Your task to perform on an android device: Search for "rayovac triple a" on ebay.com, select the first entry, and add it to the cart. Image 0: 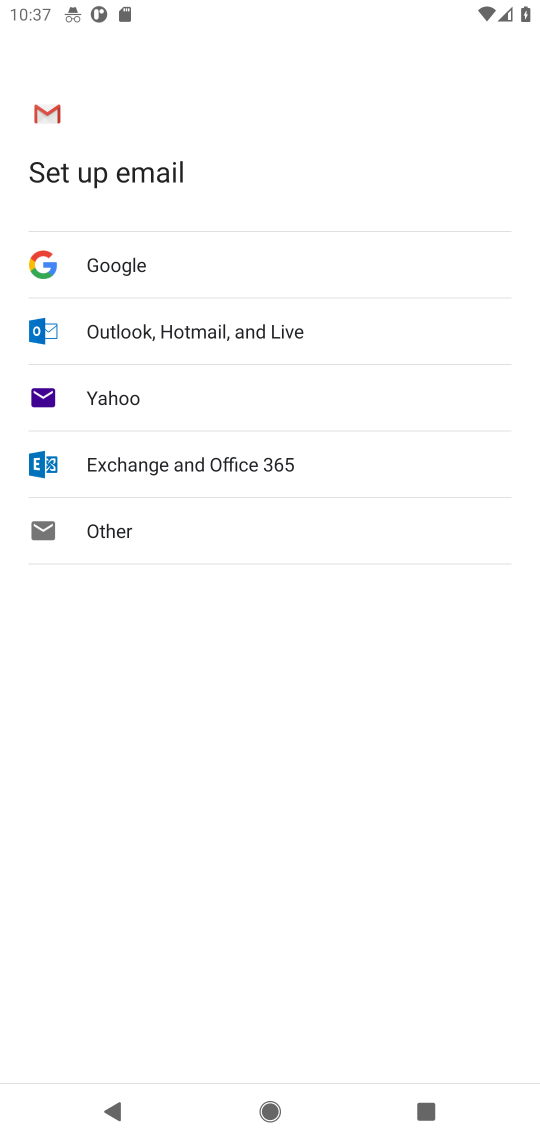
Step 0: press home button
Your task to perform on an android device: Search for "rayovac triple a" on ebay.com, select the first entry, and add it to the cart. Image 1: 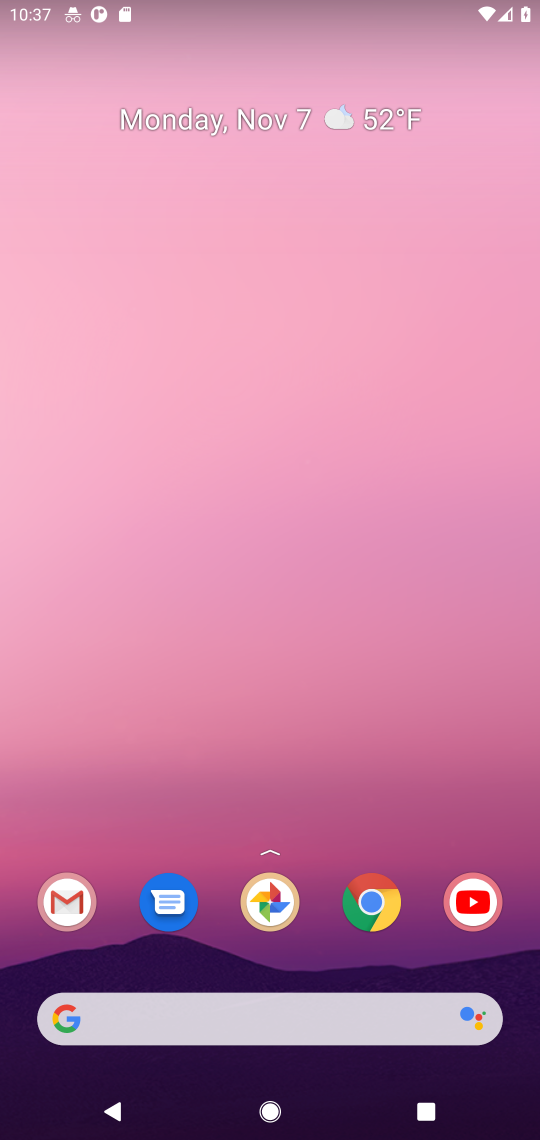
Step 1: click (371, 917)
Your task to perform on an android device: Search for "rayovac triple a" on ebay.com, select the first entry, and add it to the cart. Image 2: 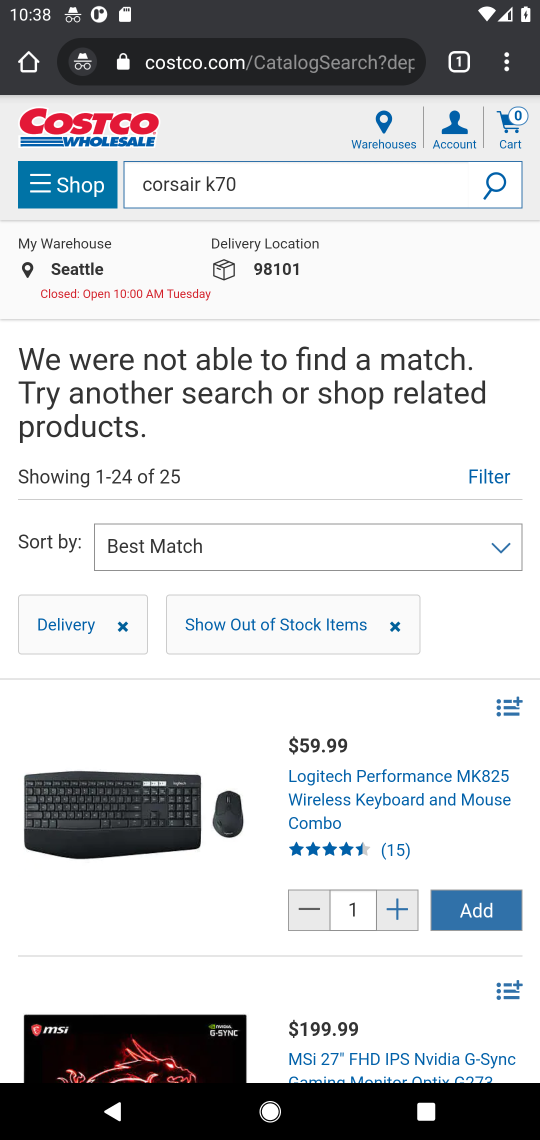
Step 2: click (267, 76)
Your task to perform on an android device: Search for "rayovac triple a" on ebay.com, select the first entry, and add it to the cart. Image 3: 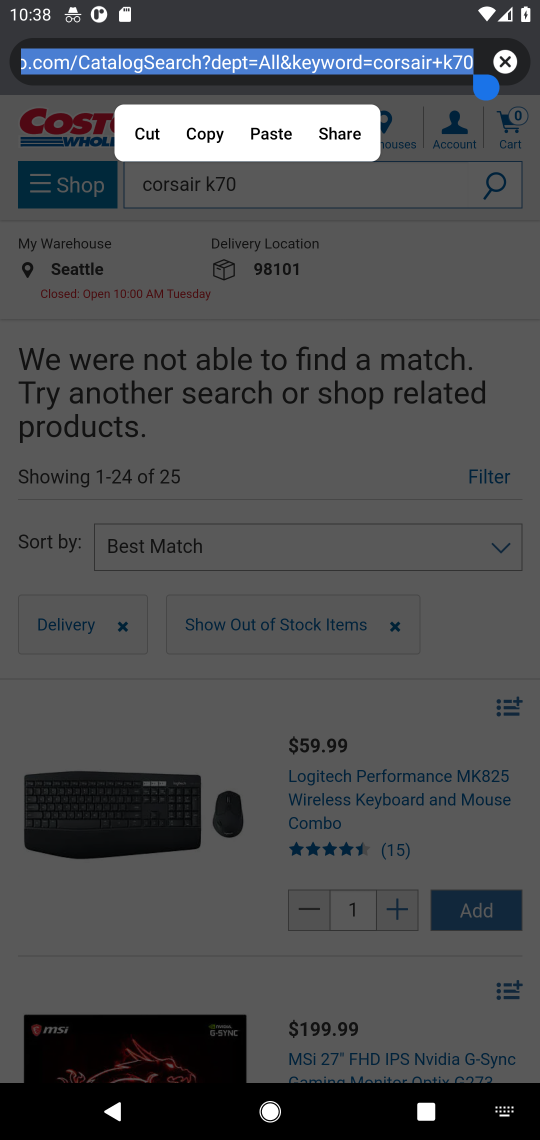
Step 3: type "ebay.com"
Your task to perform on an android device: Search for "rayovac triple a" on ebay.com, select the first entry, and add it to the cart. Image 4: 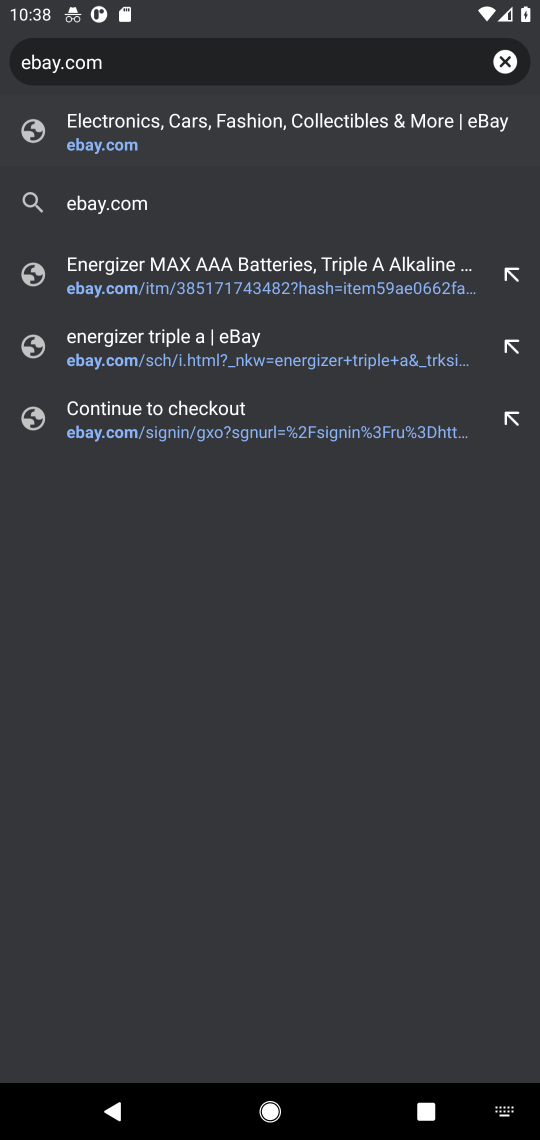
Step 4: click (114, 141)
Your task to perform on an android device: Search for "rayovac triple a" on ebay.com, select the first entry, and add it to the cart. Image 5: 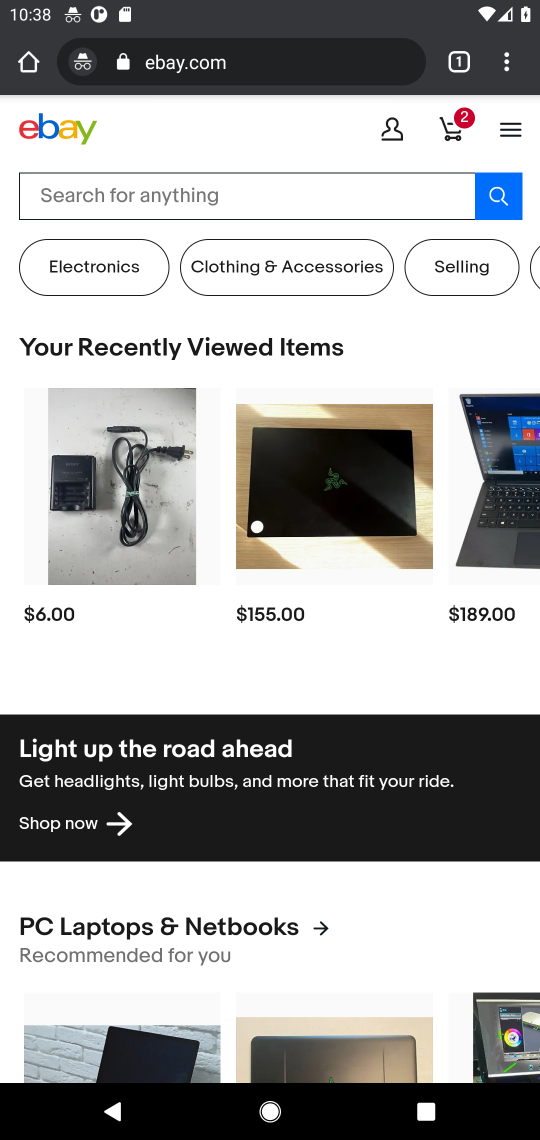
Step 5: click (260, 179)
Your task to perform on an android device: Search for "rayovac triple a" on ebay.com, select the first entry, and add it to the cart. Image 6: 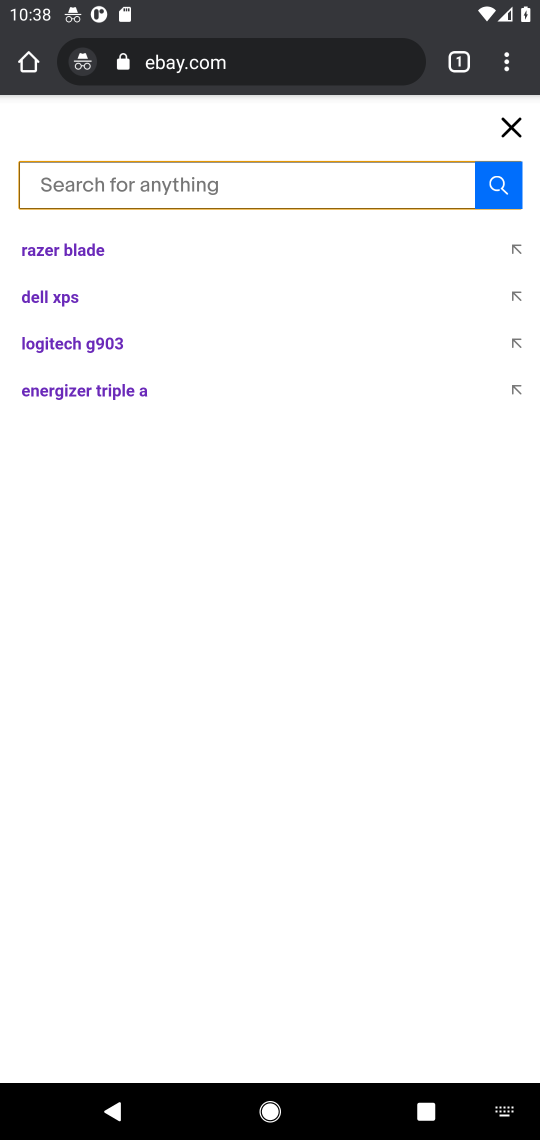
Step 6: type "rayovac triple a"
Your task to perform on an android device: Search for "rayovac triple a" on ebay.com, select the first entry, and add it to the cart. Image 7: 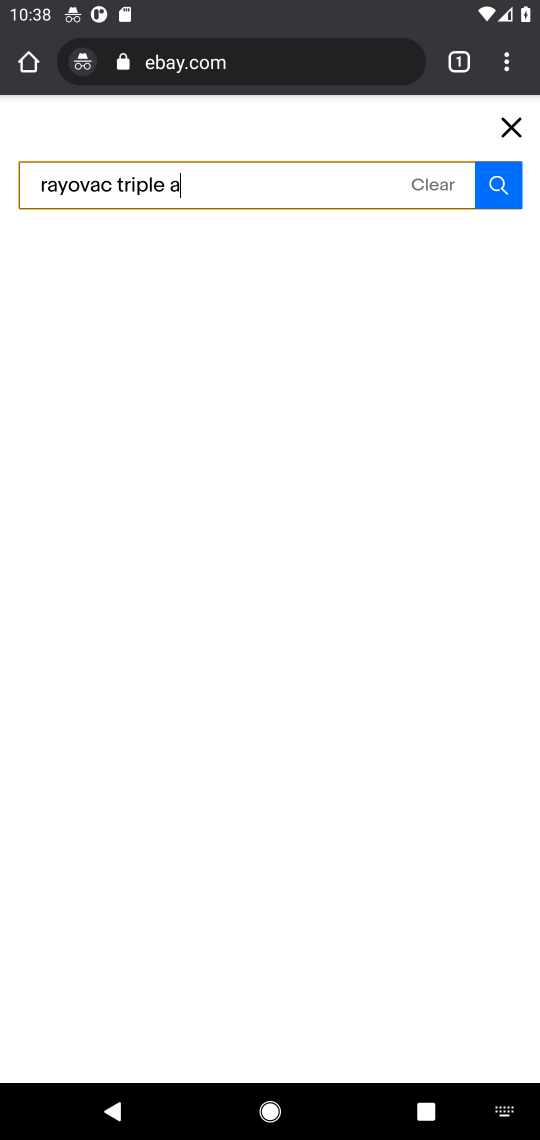
Step 7: click (485, 194)
Your task to perform on an android device: Search for "rayovac triple a" on ebay.com, select the first entry, and add it to the cart. Image 8: 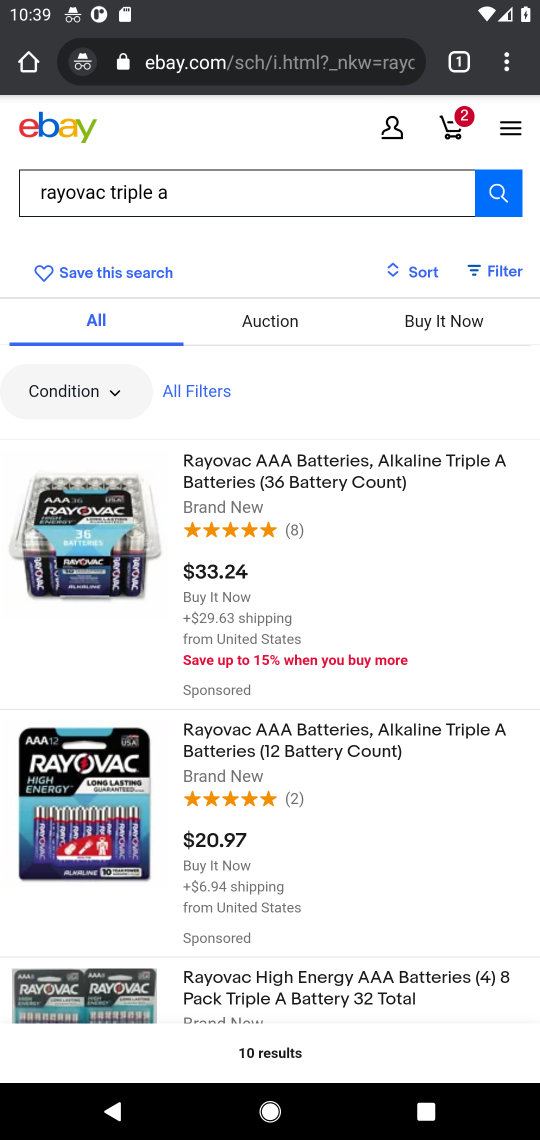
Step 8: click (124, 553)
Your task to perform on an android device: Search for "rayovac triple a" on ebay.com, select the first entry, and add it to the cart. Image 9: 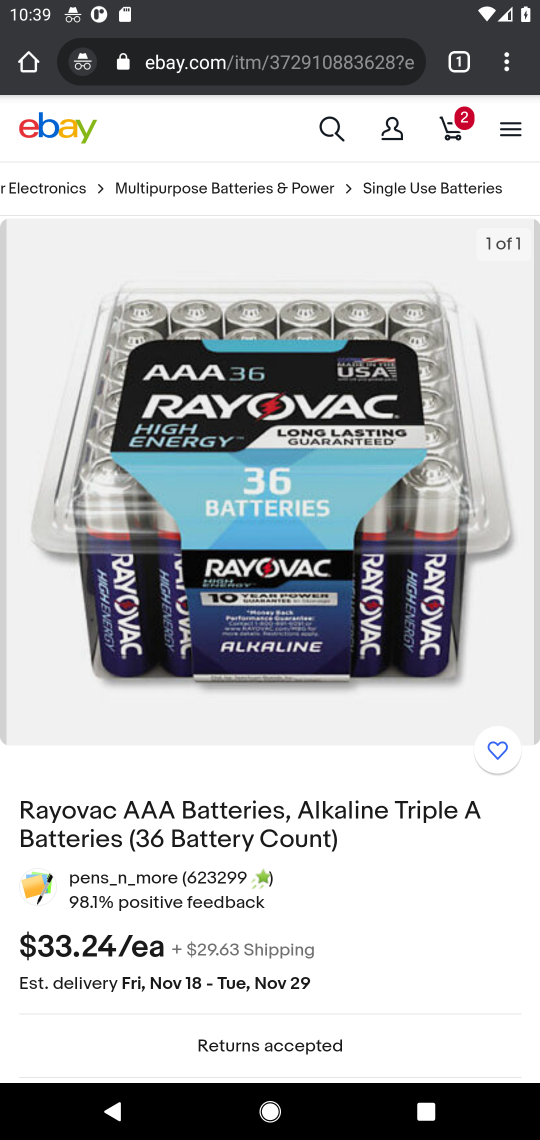
Step 9: drag from (239, 902) to (249, 574)
Your task to perform on an android device: Search for "rayovac triple a" on ebay.com, select the first entry, and add it to the cart. Image 10: 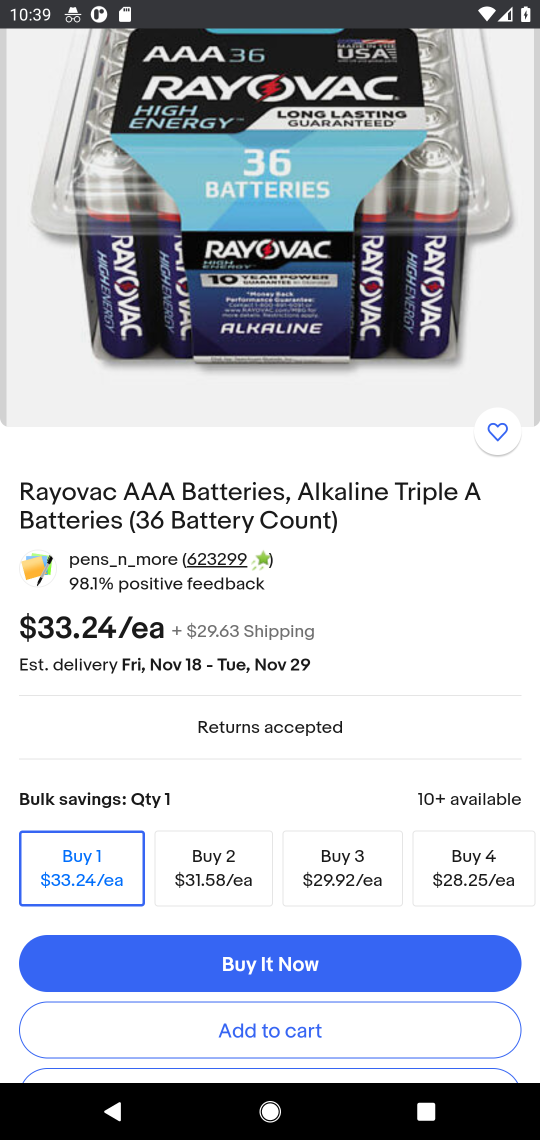
Step 10: click (259, 1026)
Your task to perform on an android device: Search for "rayovac triple a" on ebay.com, select the first entry, and add it to the cart. Image 11: 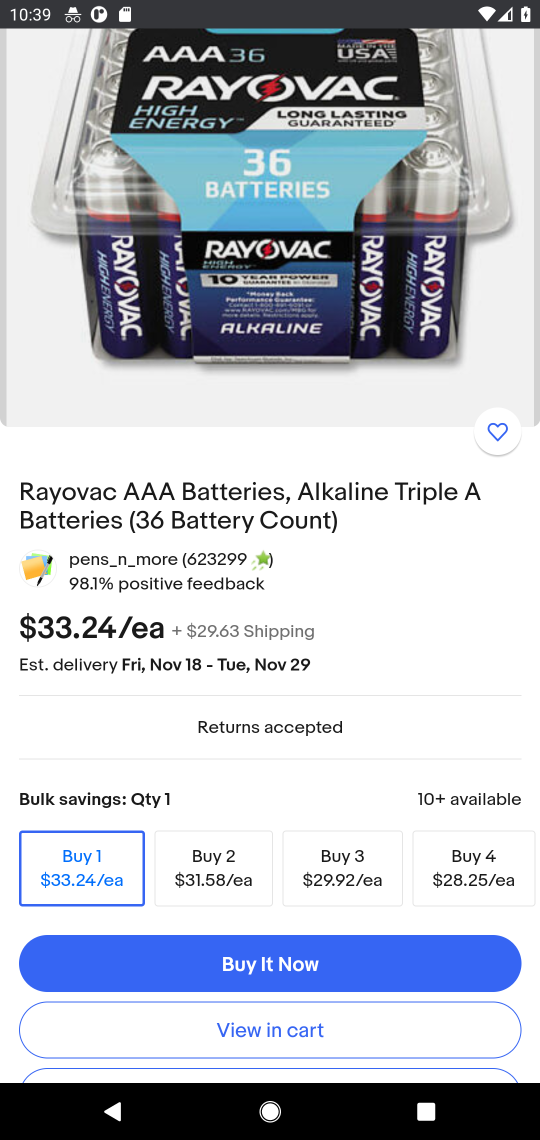
Step 11: task complete